Your task to perform on an android device: What's the weather going to be this weekend? Image 0: 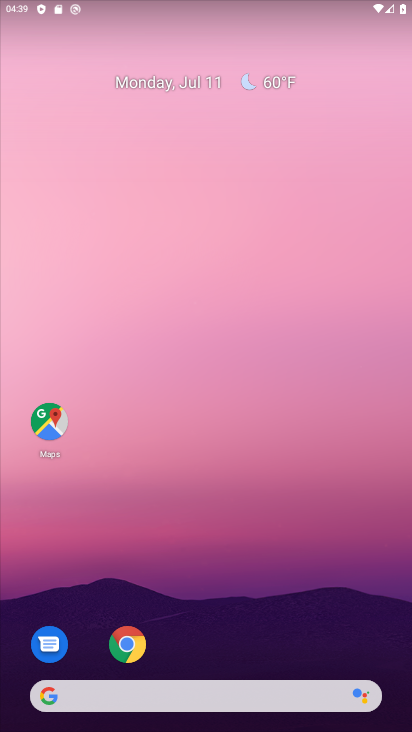
Step 0: drag from (219, 655) to (212, 319)
Your task to perform on an android device: What's the weather going to be this weekend? Image 1: 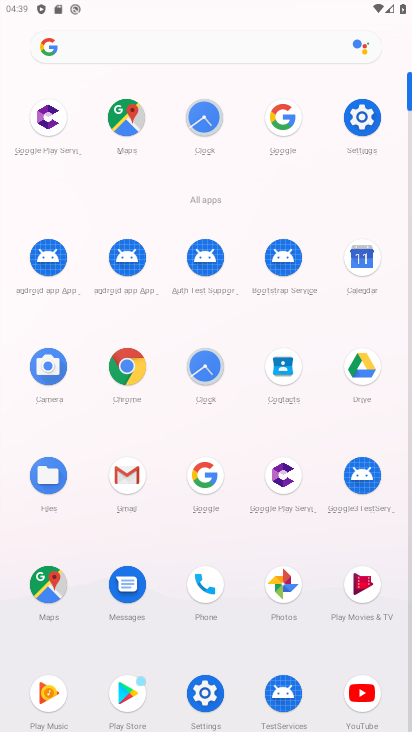
Step 1: click (211, 470)
Your task to perform on an android device: What's the weather going to be this weekend? Image 2: 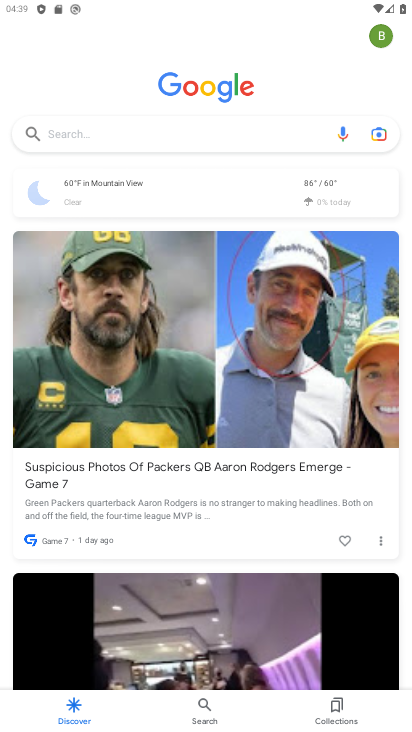
Step 2: click (138, 136)
Your task to perform on an android device: What's the weather going to be this weekend? Image 3: 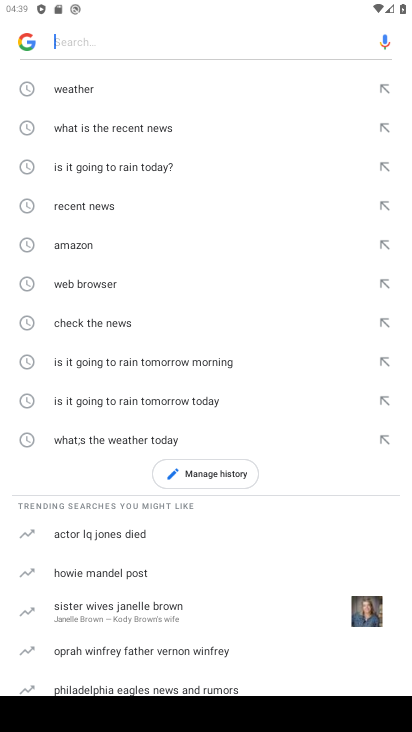
Step 3: type "What's the weather going to be this weekend?"
Your task to perform on an android device: What's the weather going to be this weekend? Image 4: 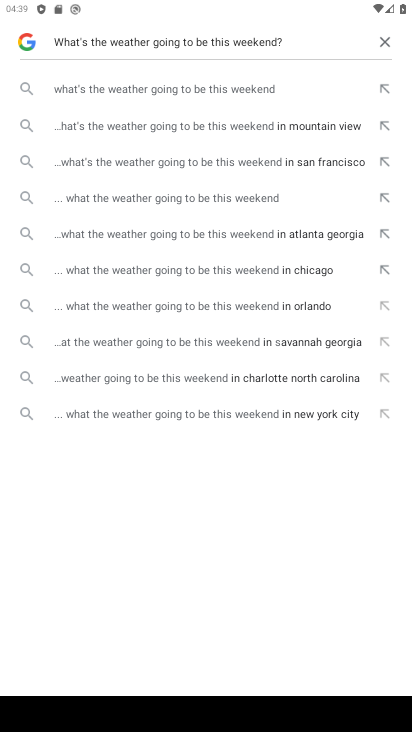
Step 4: click (166, 83)
Your task to perform on an android device: What's the weather going to be this weekend? Image 5: 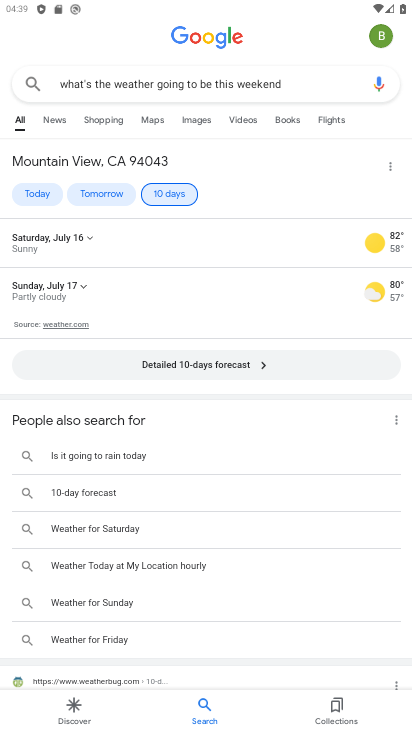
Step 5: click (223, 358)
Your task to perform on an android device: What's the weather going to be this weekend? Image 6: 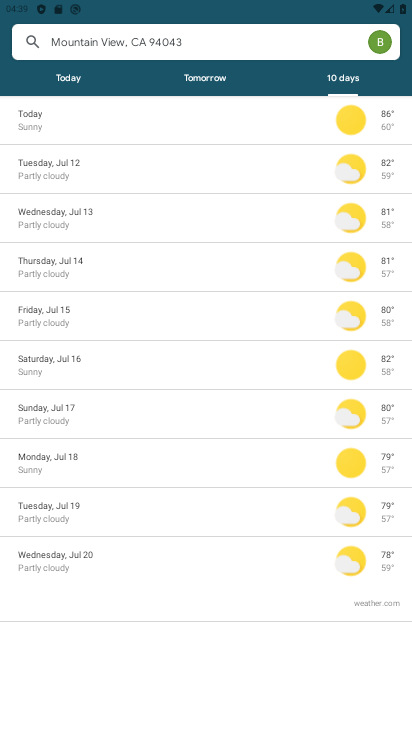
Step 6: task complete